Your task to perform on an android device: Do I have any events today? Image 0: 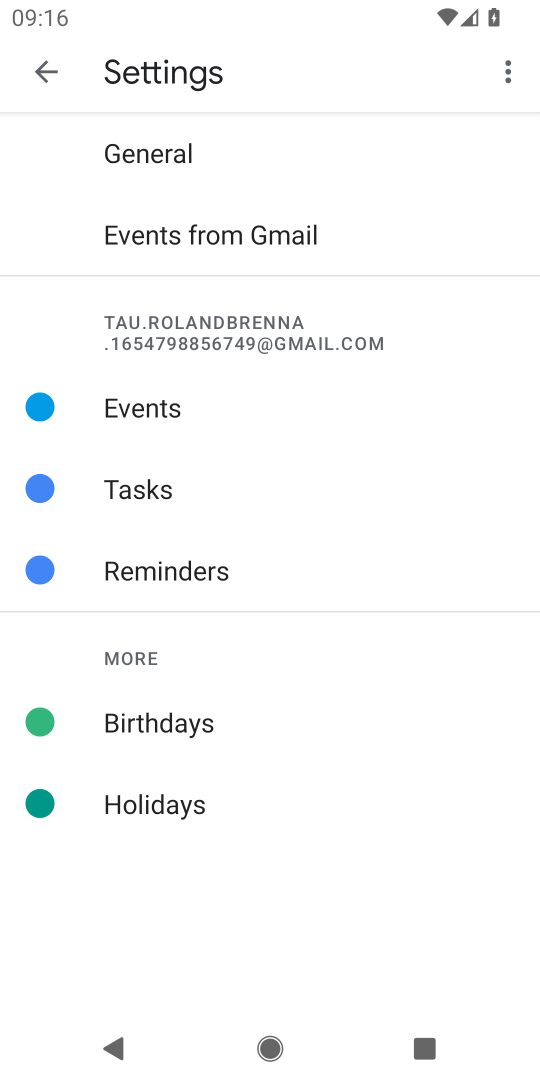
Step 0: press home button
Your task to perform on an android device: Do I have any events today? Image 1: 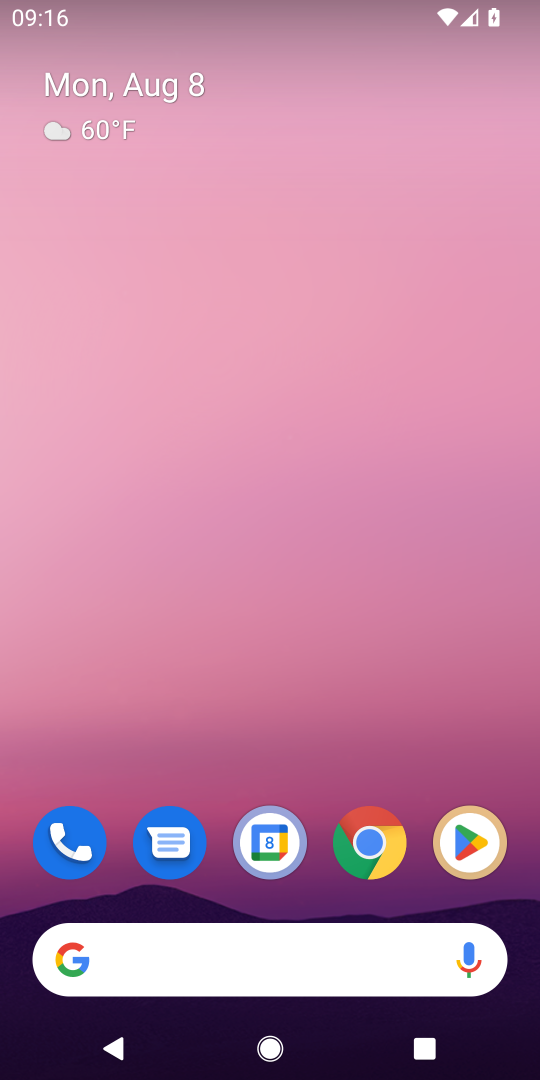
Step 1: click (282, 831)
Your task to perform on an android device: Do I have any events today? Image 2: 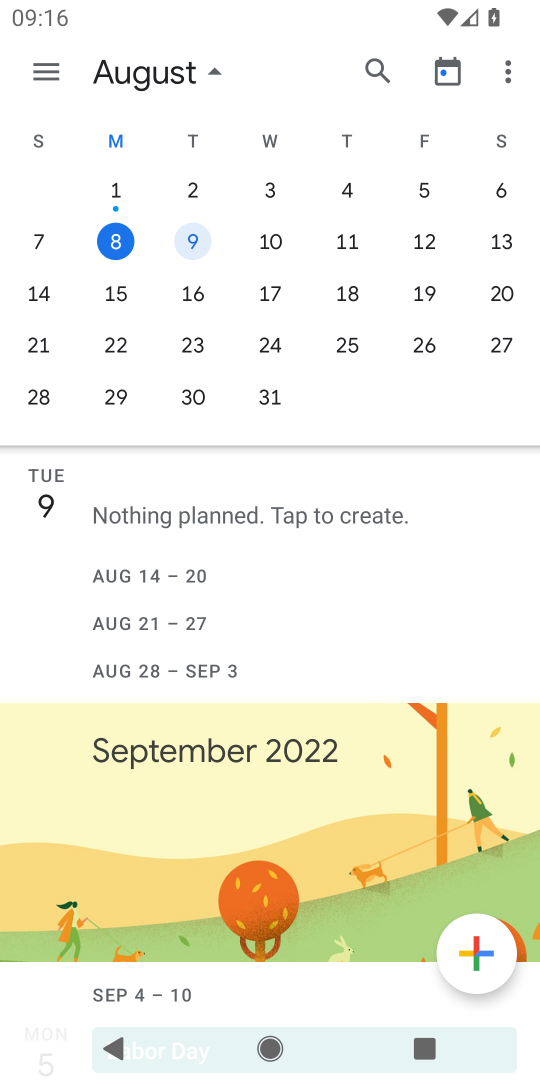
Step 2: click (112, 241)
Your task to perform on an android device: Do I have any events today? Image 3: 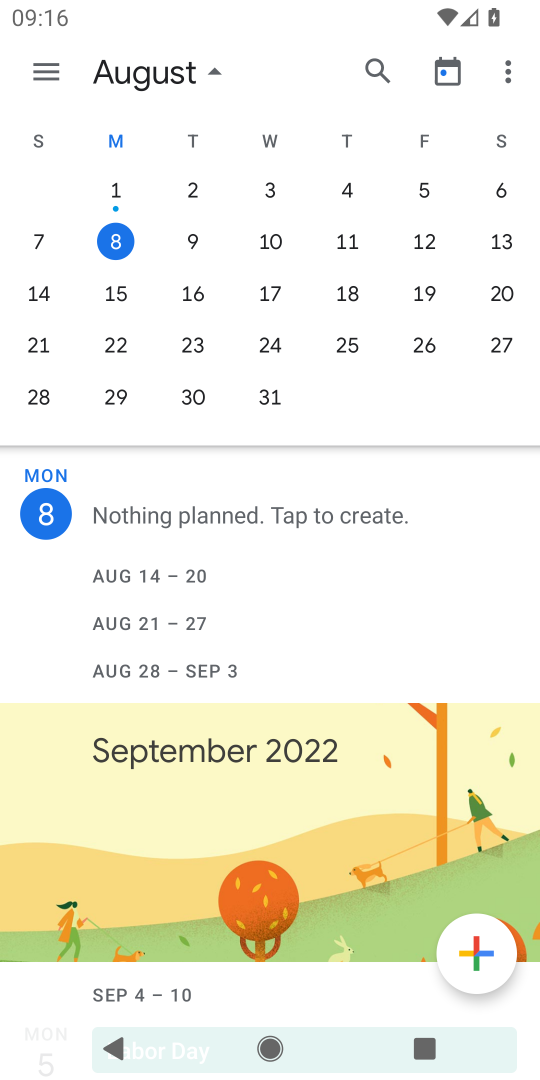
Step 3: task complete